Your task to perform on an android device: turn smart compose on in the gmail app Image 0: 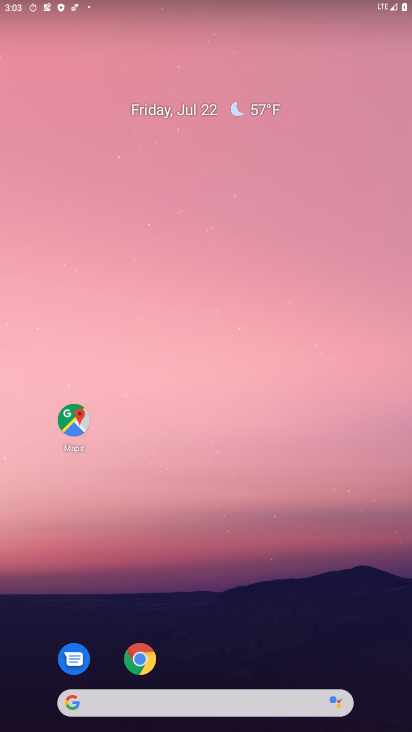
Step 0: drag from (263, 593) to (207, 81)
Your task to perform on an android device: turn smart compose on in the gmail app Image 1: 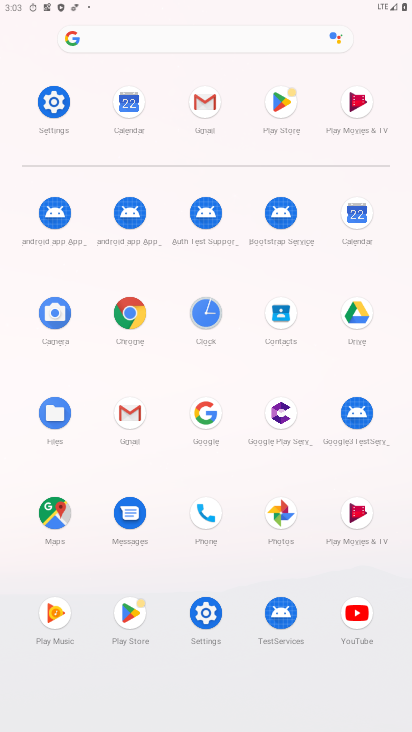
Step 1: click (205, 99)
Your task to perform on an android device: turn smart compose on in the gmail app Image 2: 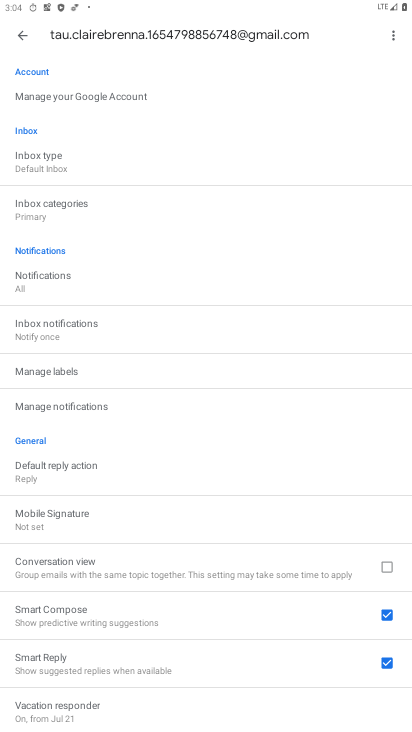
Step 2: task complete